Your task to perform on an android device: toggle location history Image 0: 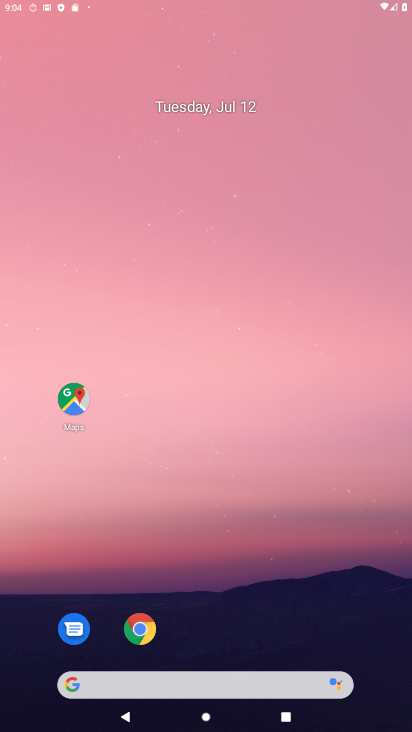
Step 0: click (213, 122)
Your task to perform on an android device: toggle location history Image 1: 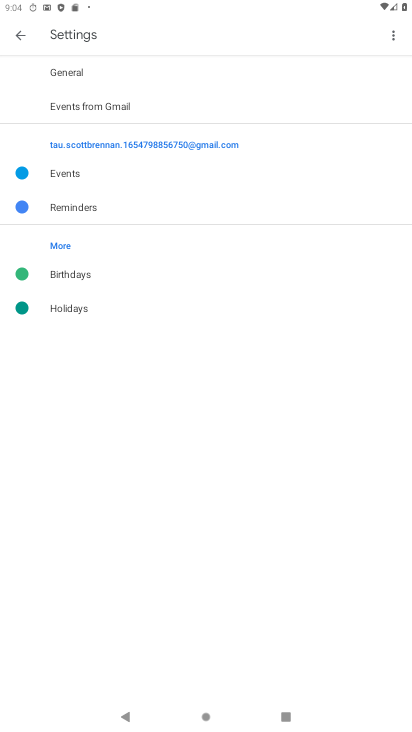
Step 1: click (14, 28)
Your task to perform on an android device: toggle location history Image 2: 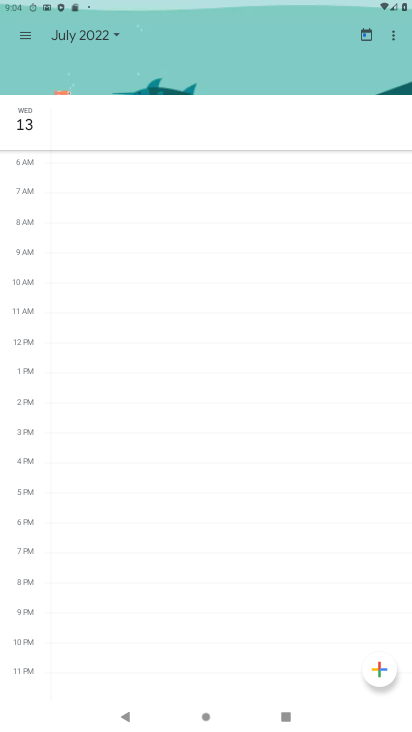
Step 2: press back button
Your task to perform on an android device: toggle location history Image 3: 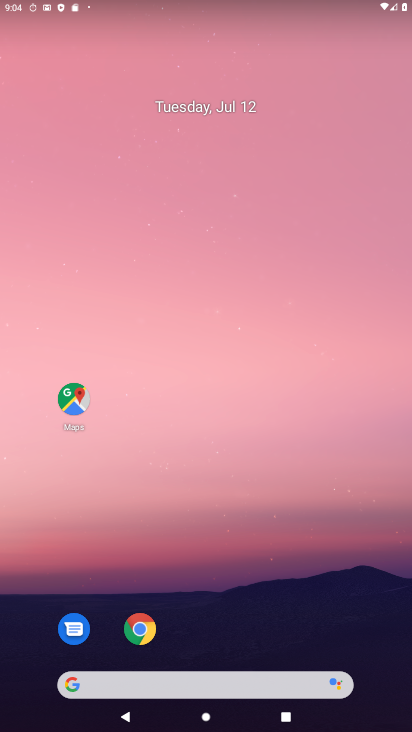
Step 3: drag from (250, 691) to (238, 130)
Your task to perform on an android device: toggle location history Image 4: 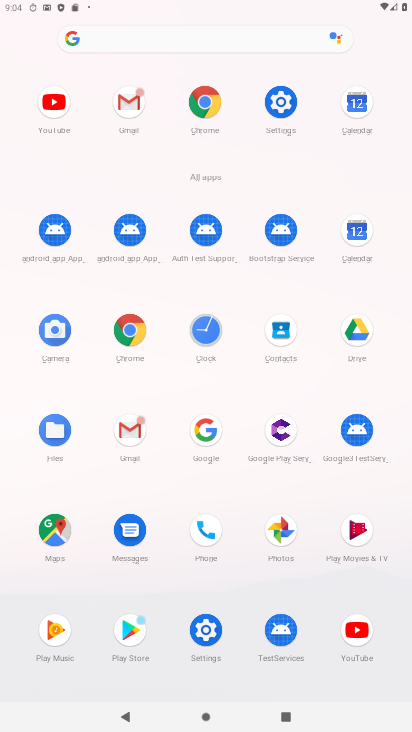
Step 4: click (277, 95)
Your task to perform on an android device: toggle location history Image 5: 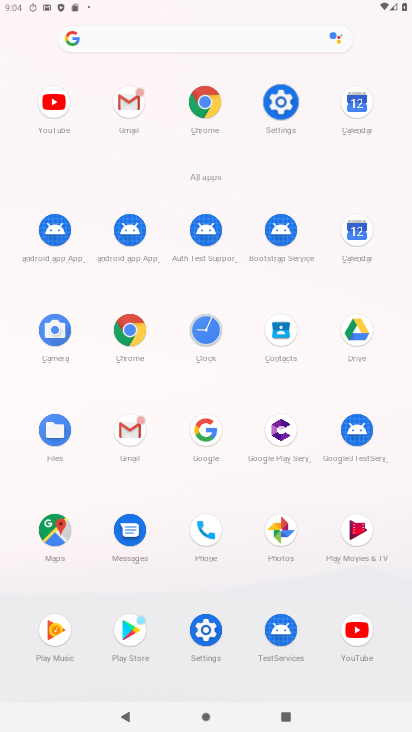
Step 5: click (284, 97)
Your task to perform on an android device: toggle location history Image 6: 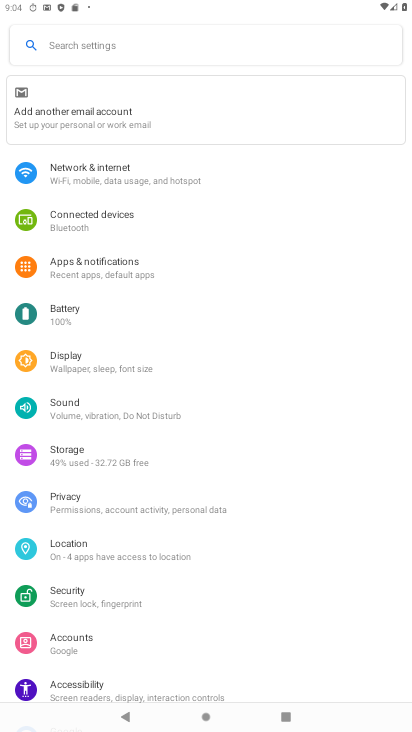
Step 6: drag from (153, 530) to (115, 202)
Your task to perform on an android device: toggle location history Image 7: 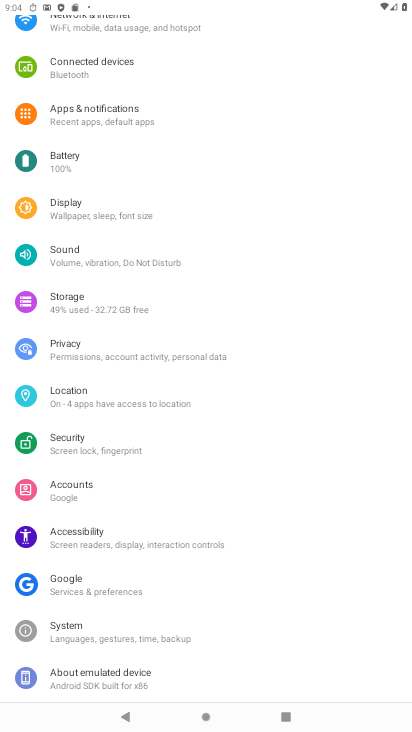
Step 7: drag from (107, 143) to (160, 512)
Your task to perform on an android device: toggle location history Image 8: 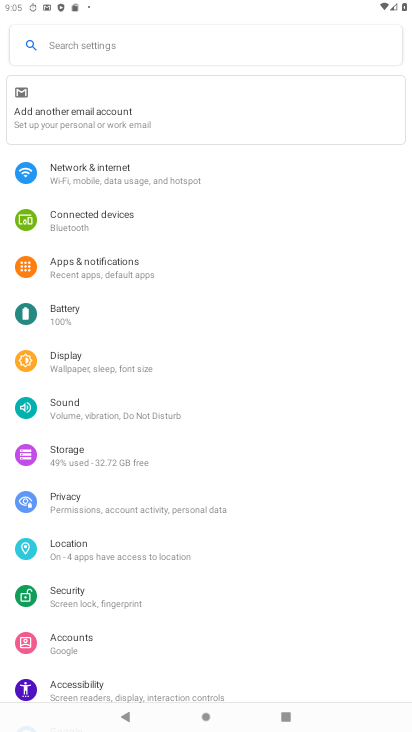
Step 8: drag from (88, 581) to (87, 338)
Your task to perform on an android device: toggle location history Image 9: 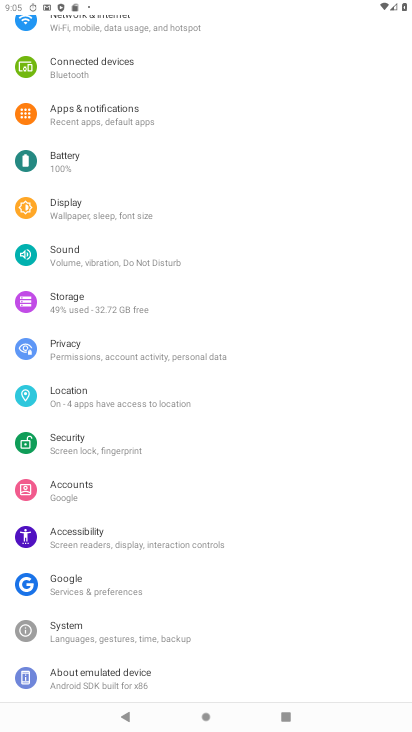
Step 9: click (81, 398)
Your task to perform on an android device: toggle location history Image 10: 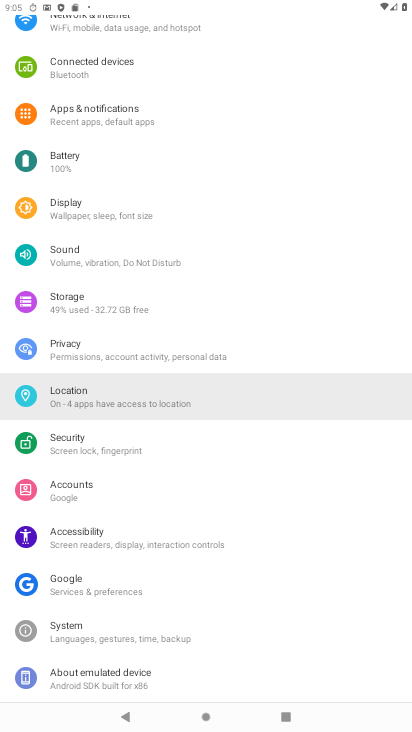
Step 10: click (91, 391)
Your task to perform on an android device: toggle location history Image 11: 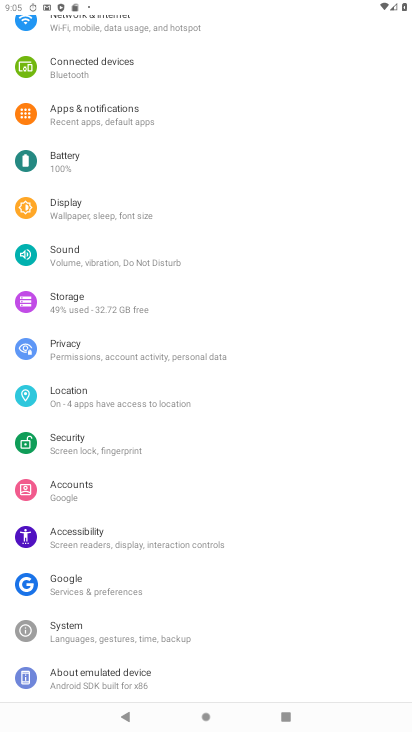
Step 11: click (95, 391)
Your task to perform on an android device: toggle location history Image 12: 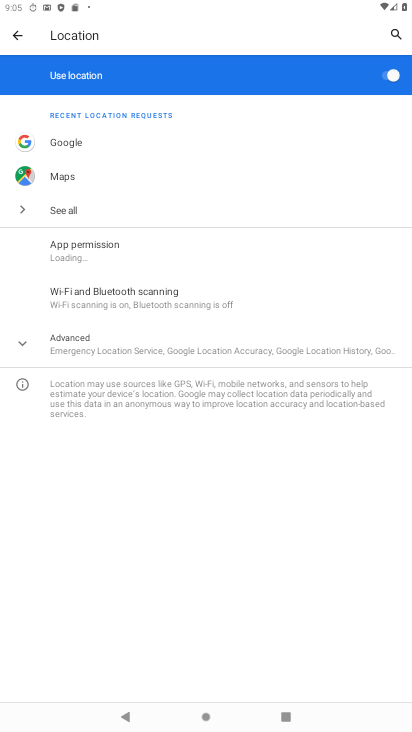
Step 12: click (105, 351)
Your task to perform on an android device: toggle location history Image 13: 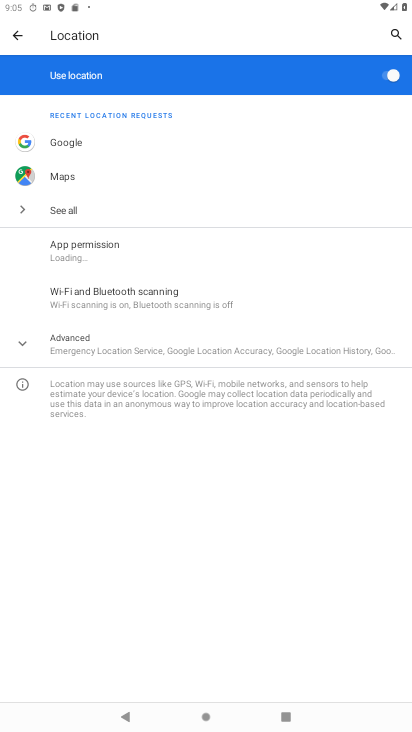
Step 13: click (107, 352)
Your task to perform on an android device: toggle location history Image 14: 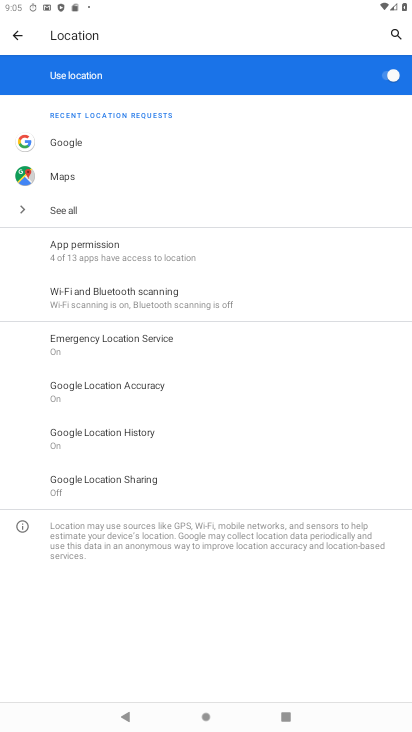
Step 14: click (126, 439)
Your task to perform on an android device: toggle location history Image 15: 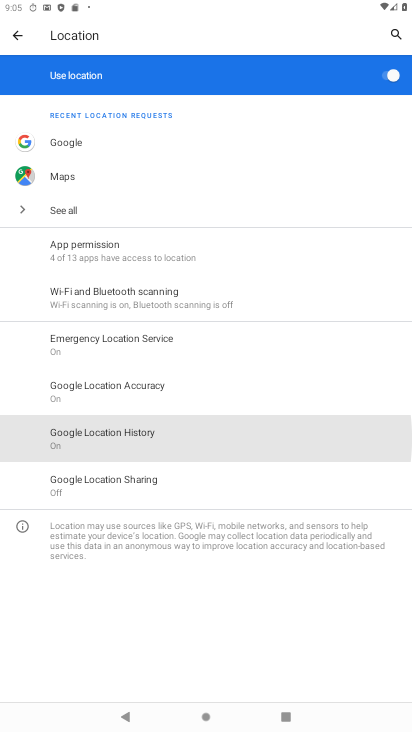
Step 15: click (131, 441)
Your task to perform on an android device: toggle location history Image 16: 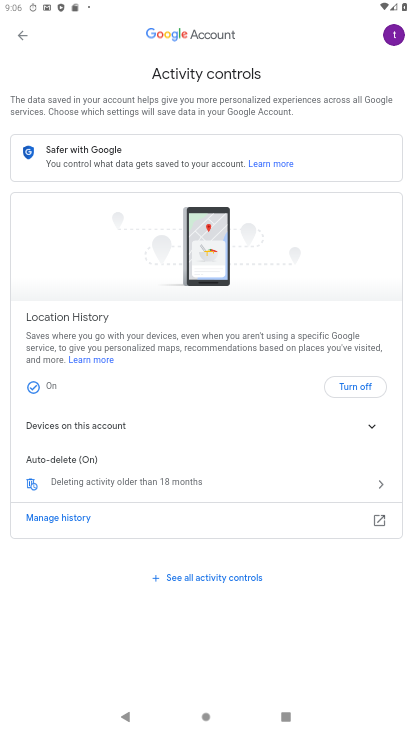
Step 16: click (342, 380)
Your task to perform on an android device: toggle location history Image 17: 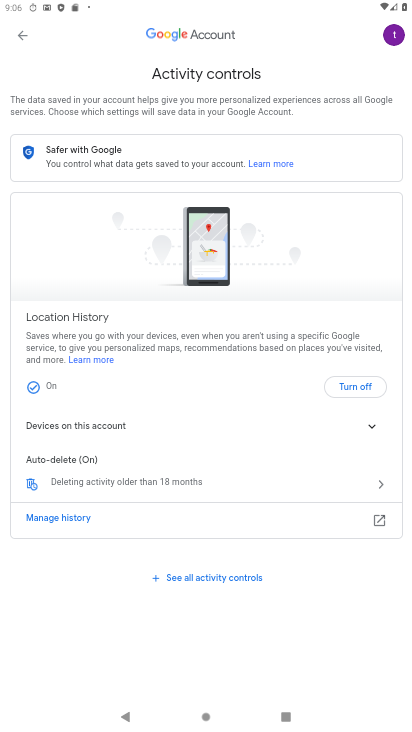
Step 17: click (346, 382)
Your task to perform on an android device: toggle location history Image 18: 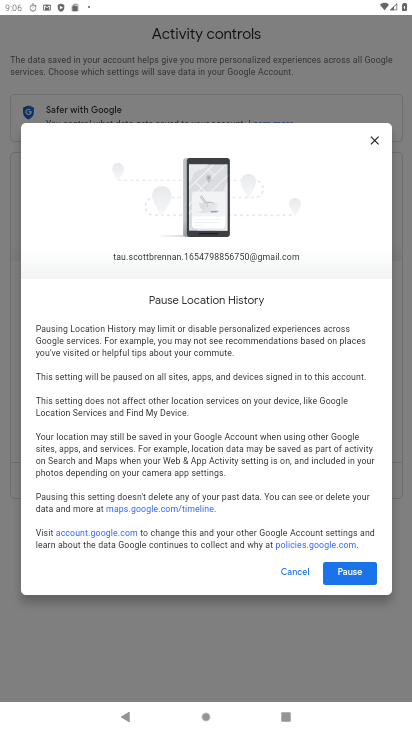
Step 18: task complete